Your task to perform on an android device: check android version Image 0: 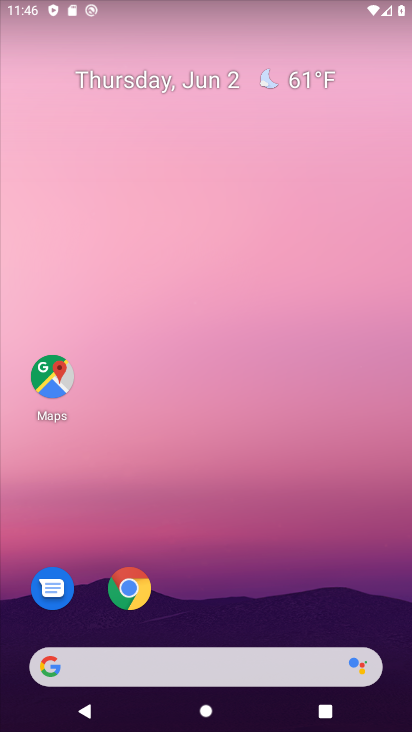
Step 0: drag from (234, 588) to (321, 95)
Your task to perform on an android device: check android version Image 1: 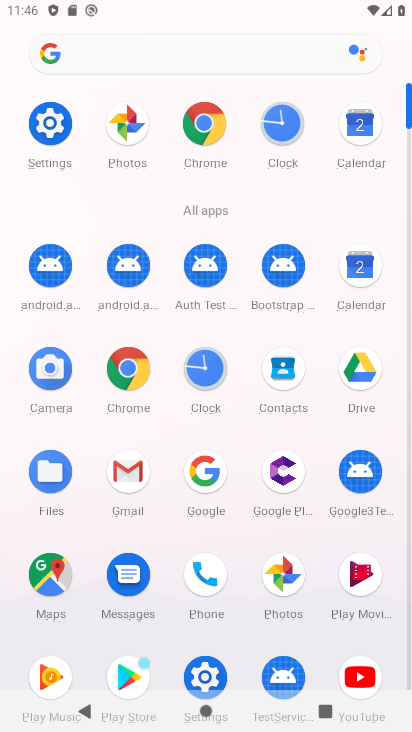
Step 1: drag from (231, 206) to (238, 11)
Your task to perform on an android device: check android version Image 2: 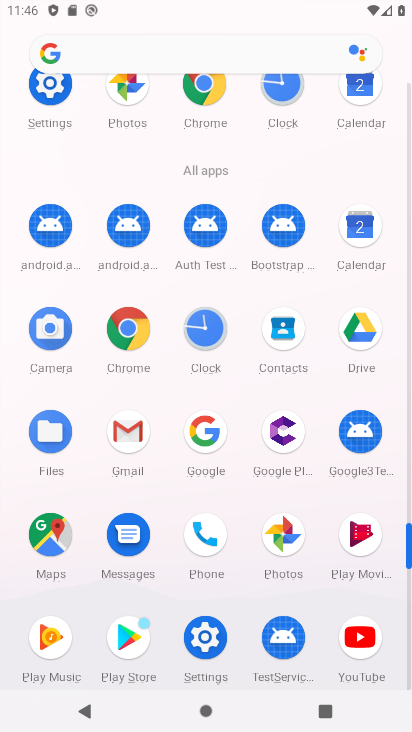
Step 2: click (215, 624)
Your task to perform on an android device: check android version Image 3: 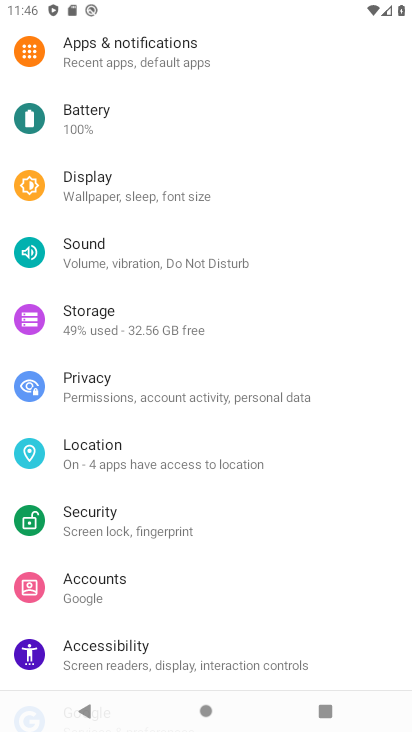
Step 3: drag from (196, 594) to (207, 152)
Your task to perform on an android device: check android version Image 4: 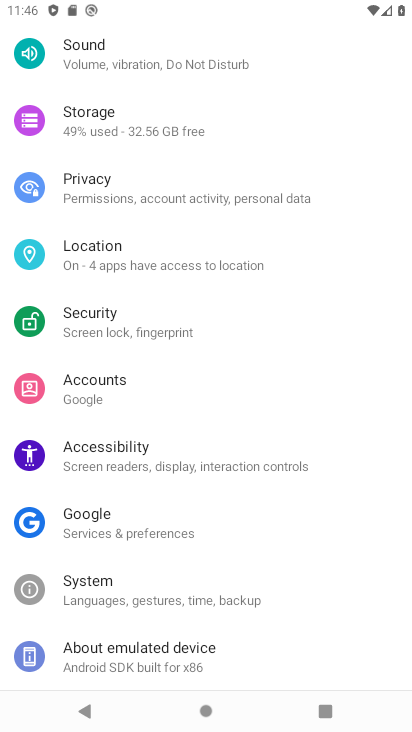
Step 4: click (155, 650)
Your task to perform on an android device: check android version Image 5: 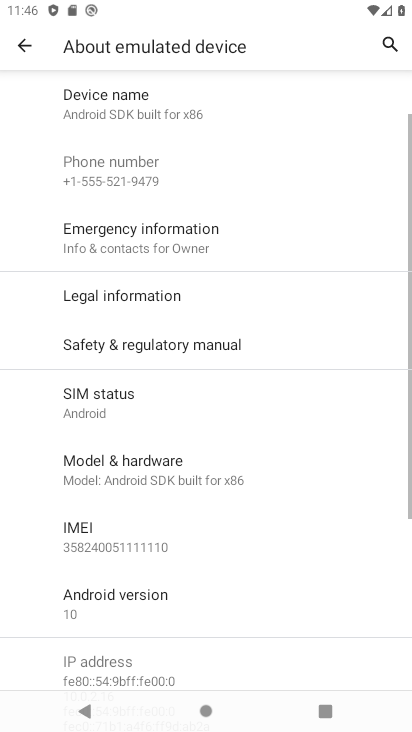
Step 5: click (142, 607)
Your task to perform on an android device: check android version Image 6: 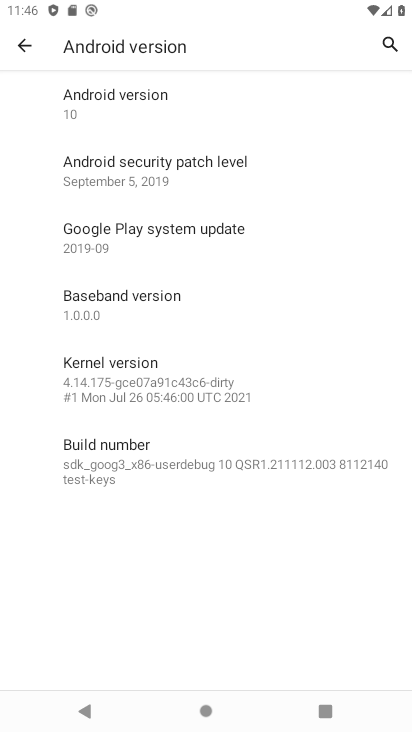
Step 6: task complete